Your task to perform on an android device: Open my contact list Image 0: 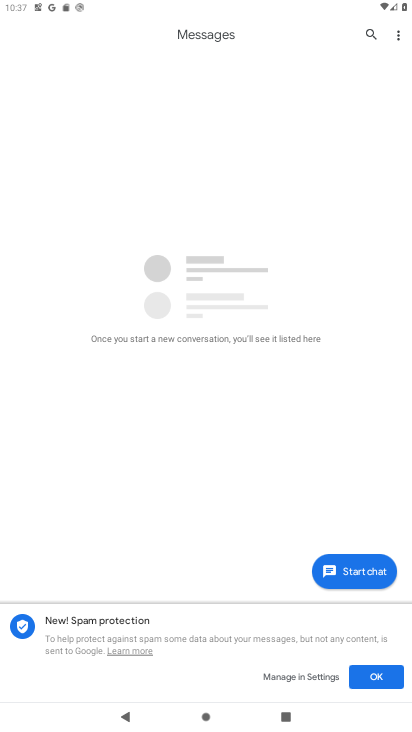
Step 0: press home button
Your task to perform on an android device: Open my contact list Image 1: 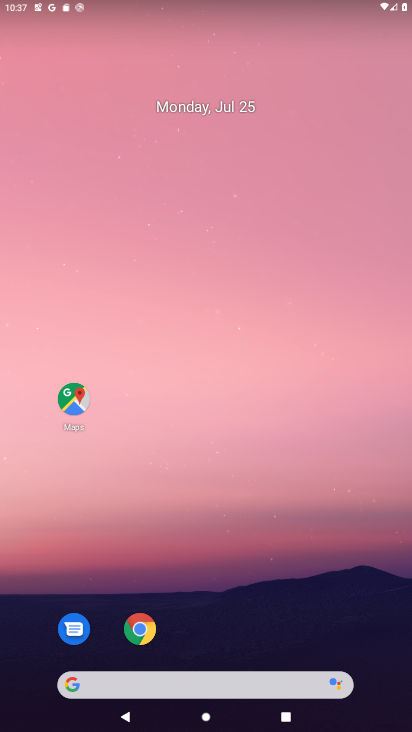
Step 1: drag from (193, 609) to (306, 94)
Your task to perform on an android device: Open my contact list Image 2: 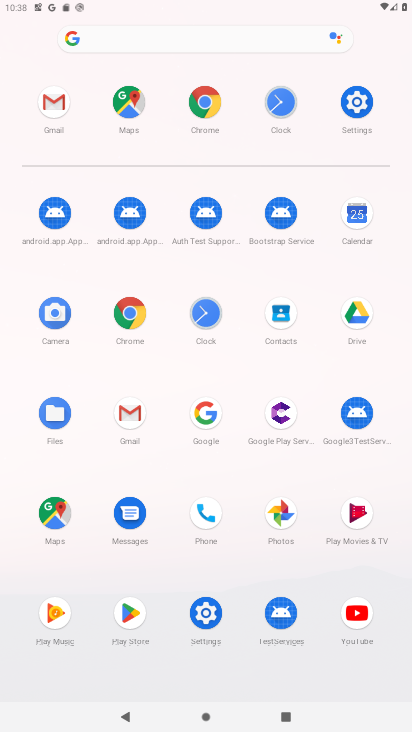
Step 2: click (282, 300)
Your task to perform on an android device: Open my contact list Image 3: 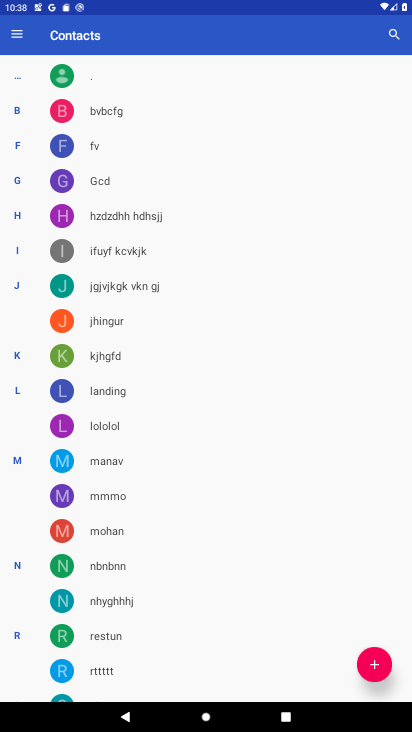
Step 3: task complete